Your task to perform on an android device: make emails show in primary in the gmail app Image 0: 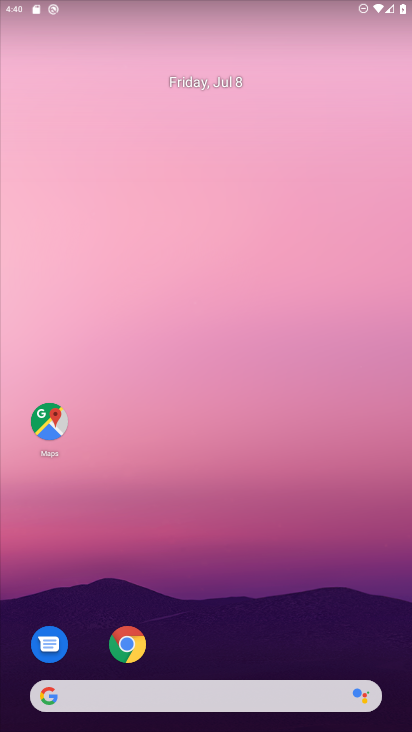
Step 0: drag from (303, 601) to (268, 129)
Your task to perform on an android device: make emails show in primary in the gmail app Image 1: 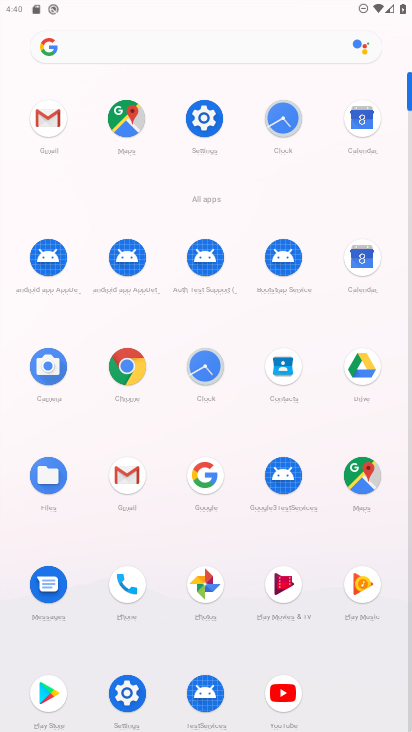
Step 1: click (132, 464)
Your task to perform on an android device: make emails show in primary in the gmail app Image 2: 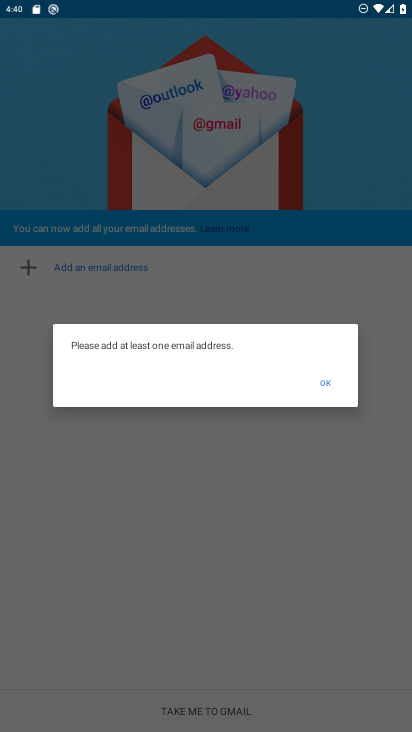
Step 2: task complete